Your task to perform on an android device: Open Amazon Image 0: 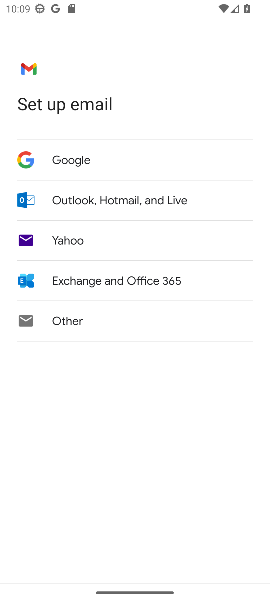
Step 0: press home button
Your task to perform on an android device: Open Amazon Image 1: 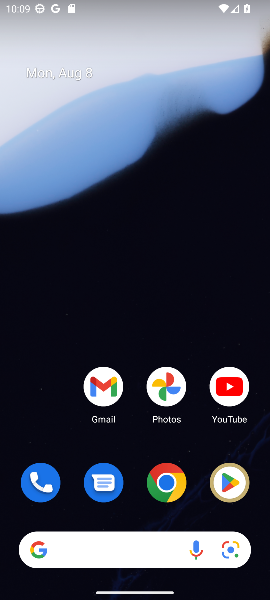
Step 1: click (172, 477)
Your task to perform on an android device: Open Amazon Image 2: 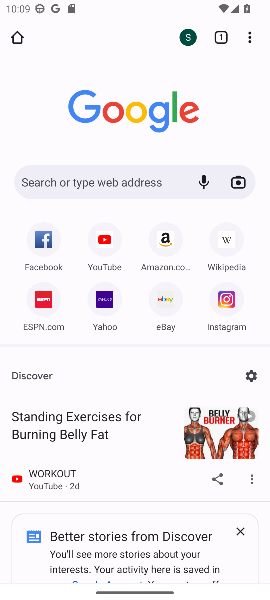
Step 2: click (164, 236)
Your task to perform on an android device: Open Amazon Image 3: 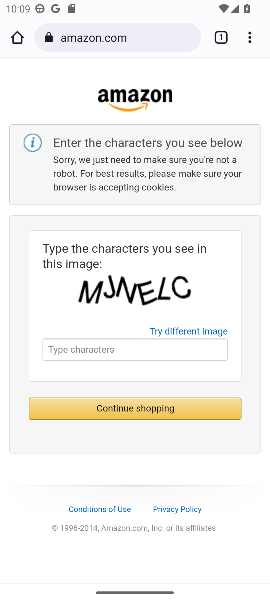
Step 3: task complete